Your task to perform on an android device: install app "Pinterest" Image 0: 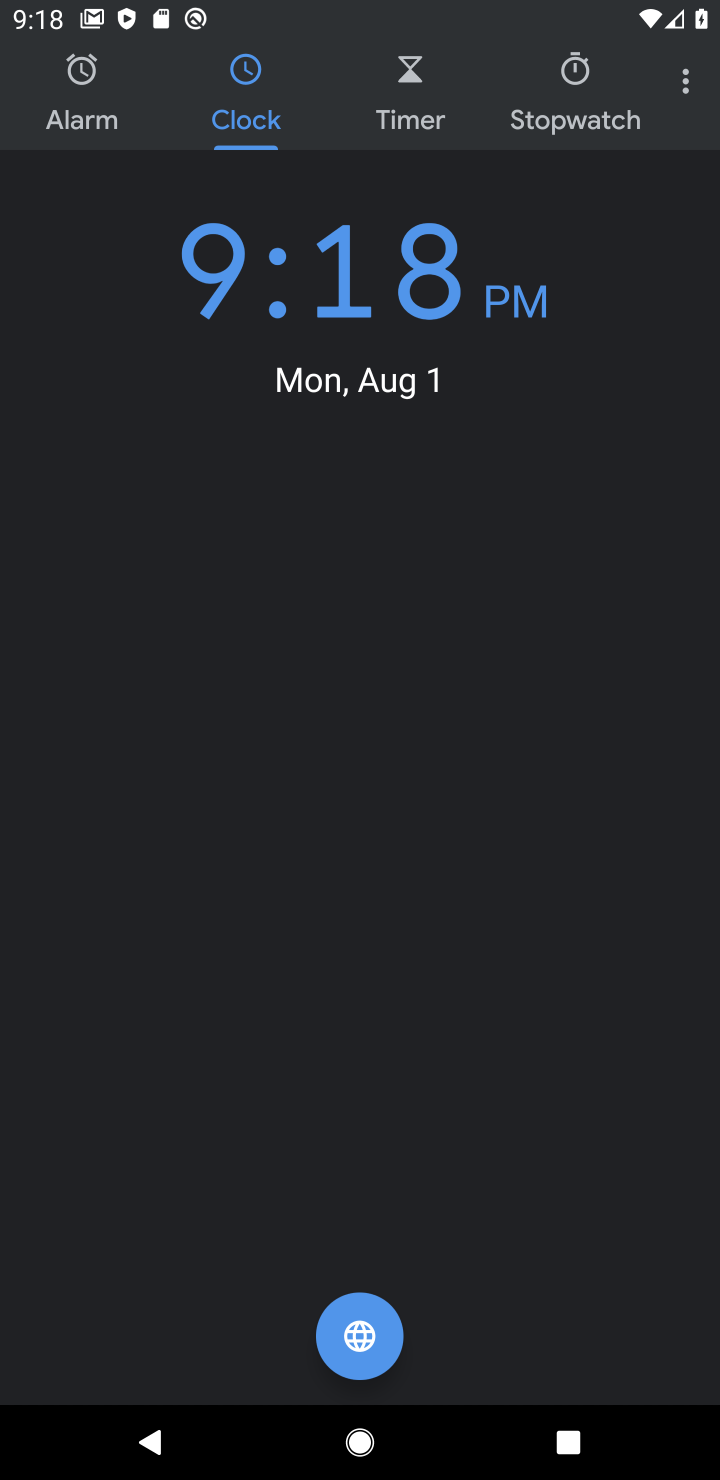
Step 0: press back button
Your task to perform on an android device: install app "Pinterest" Image 1: 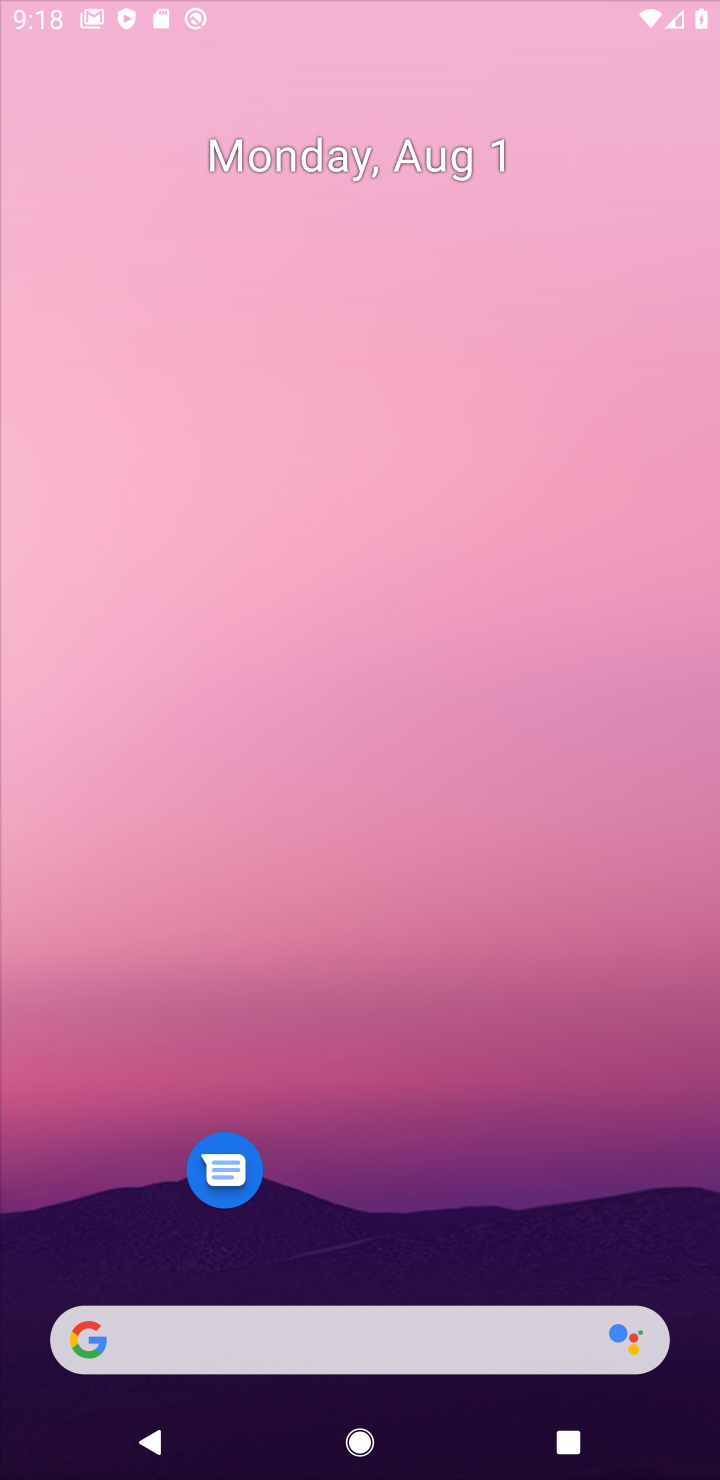
Step 1: press home button
Your task to perform on an android device: install app "Pinterest" Image 2: 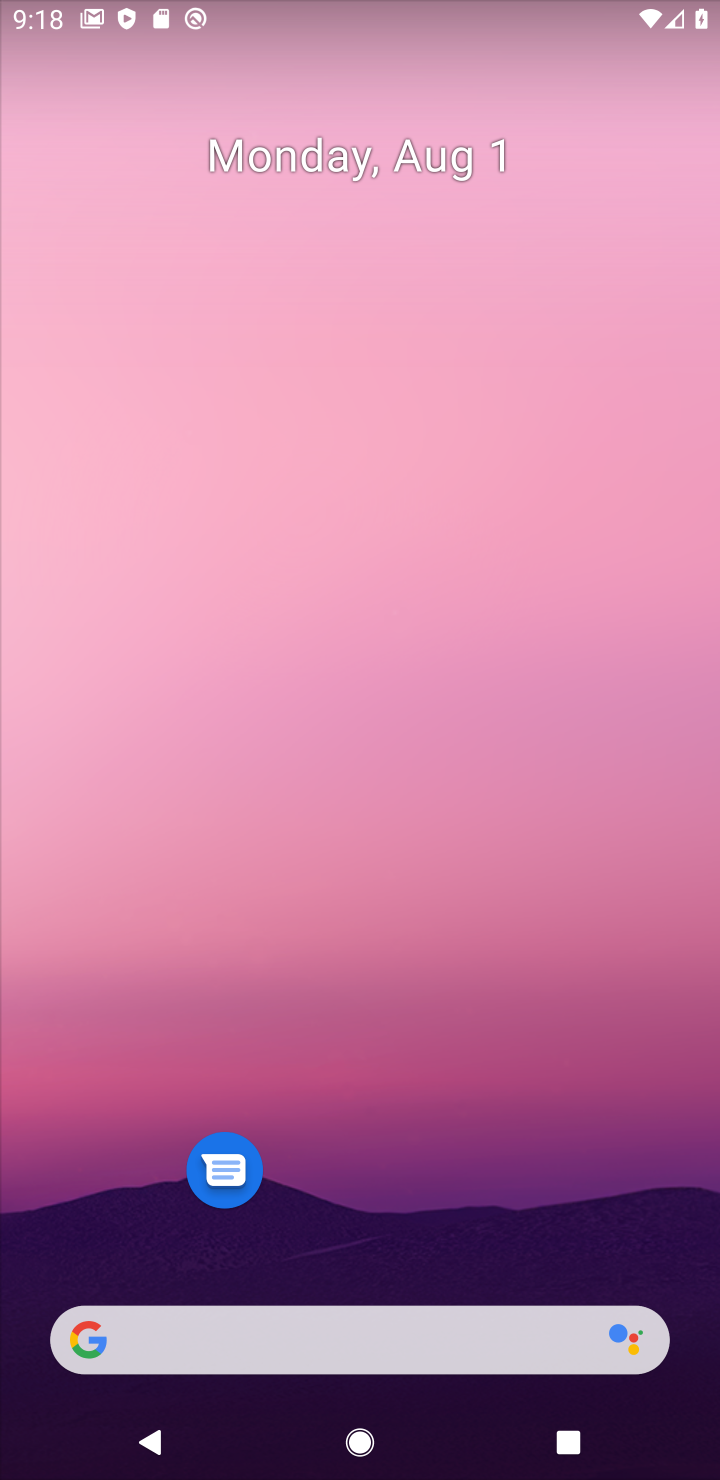
Step 2: press home button
Your task to perform on an android device: install app "Pinterest" Image 3: 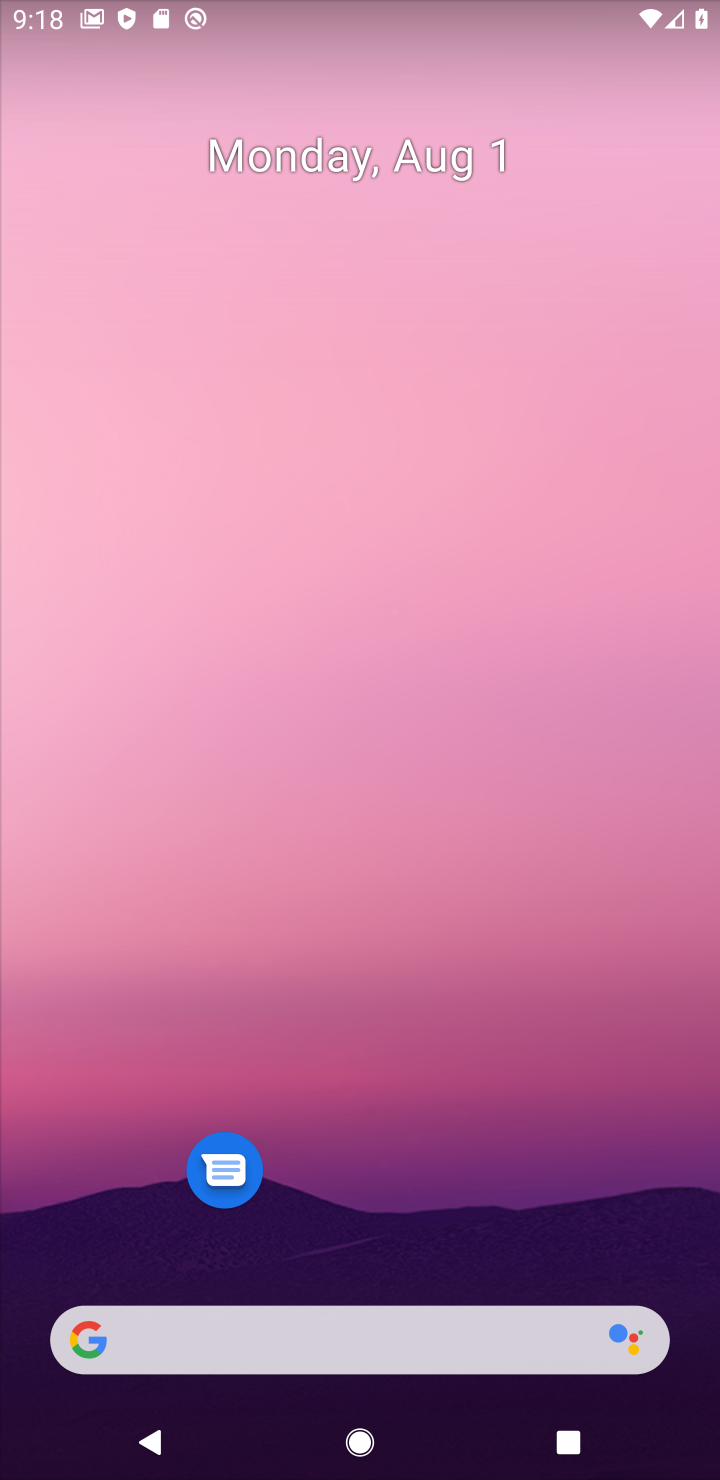
Step 3: drag from (420, 45) to (561, 127)
Your task to perform on an android device: install app "Pinterest" Image 4: 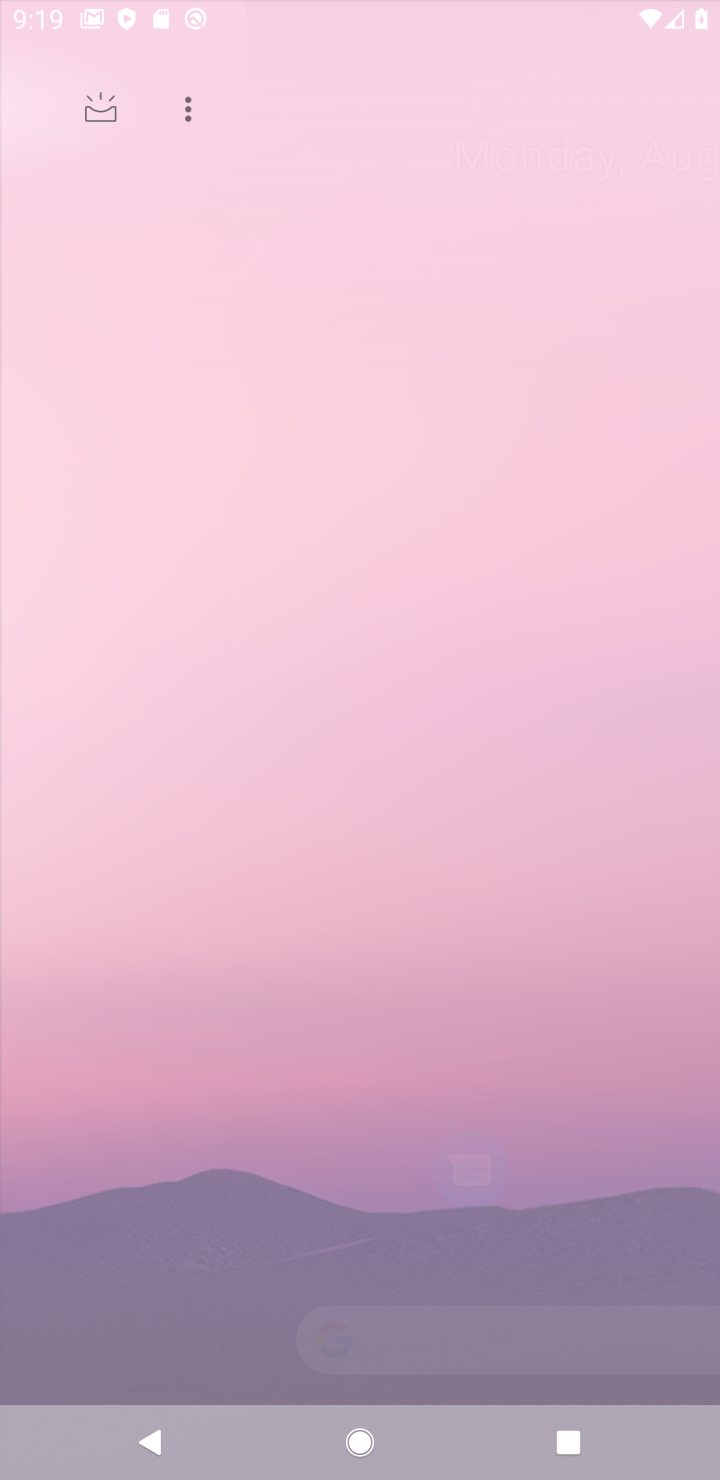
Step 4: click (452, 69)
Your task to perform on an android device: install app "Pinterest" Image 5: 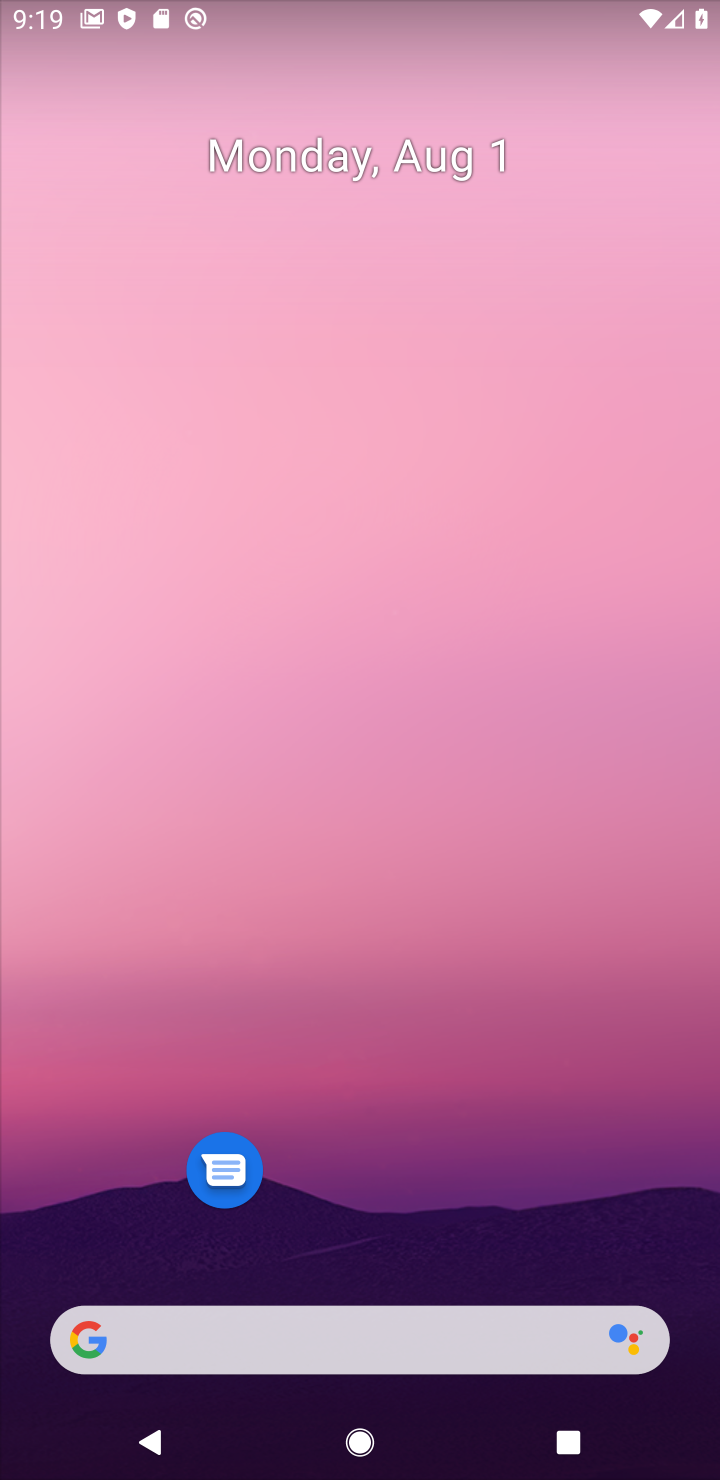
Step 5: click (305, 260)
Your task to perform on an android device: install app "Pinterest" Image 6: 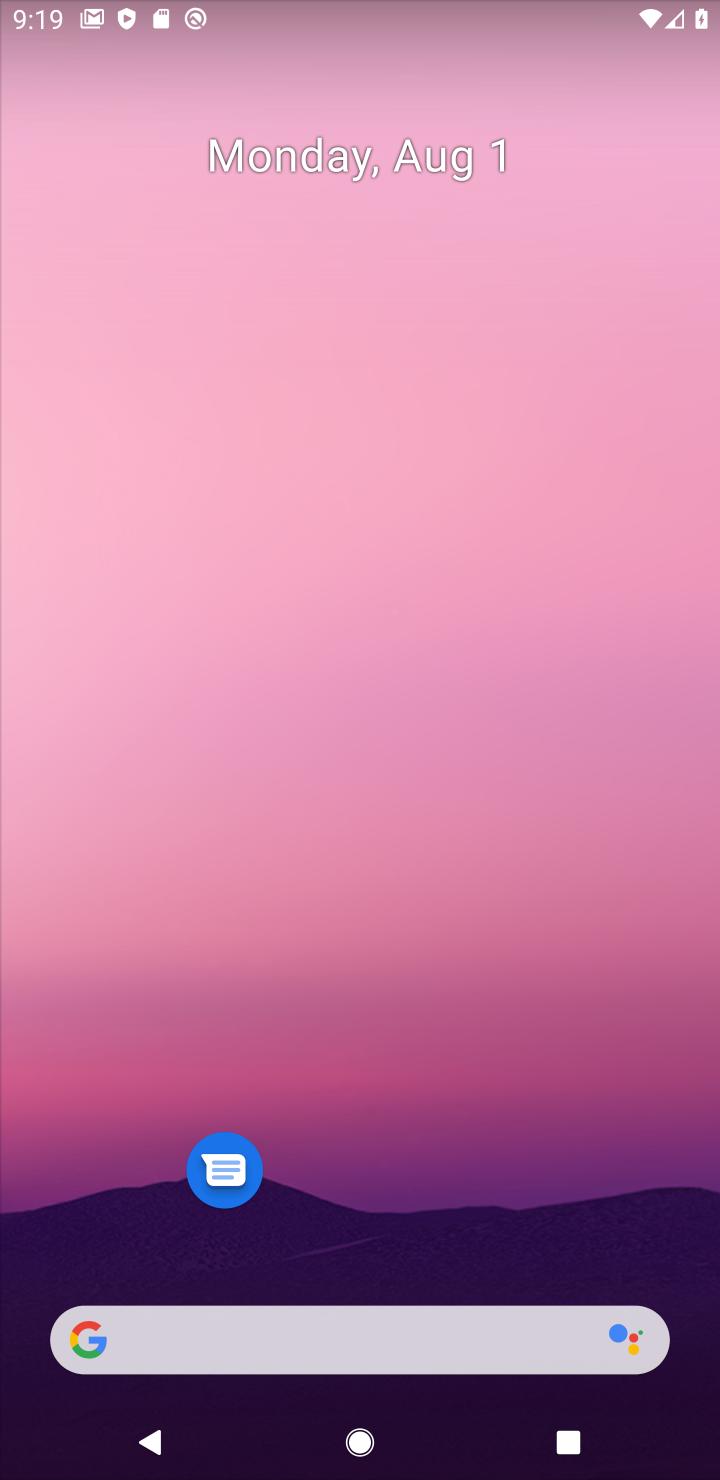
Step 6: drag from (260, 268) to (271, 169)
Your task to perform on an android device: install app "Pinterest" Image 7: 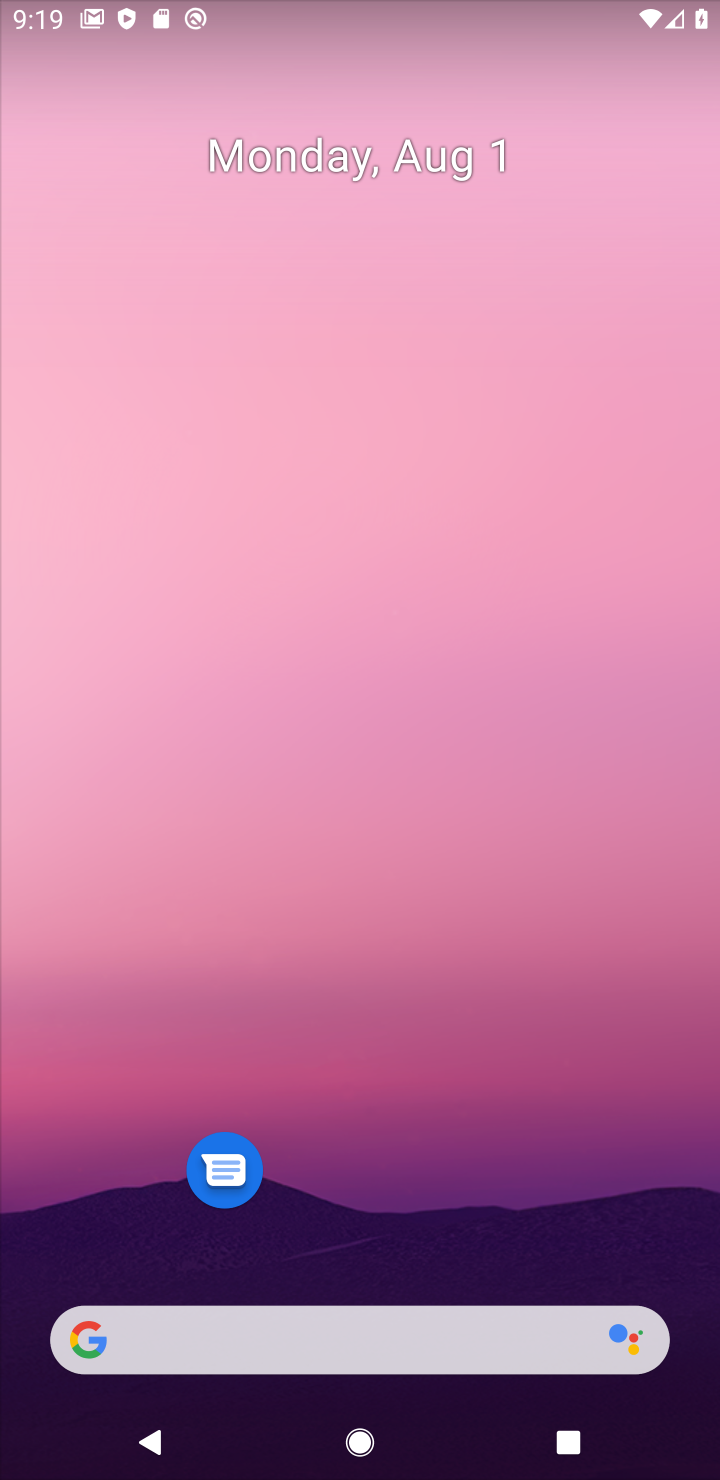
Step 7: drag from (461, 866) to (264, 13)
Your task to perform on an android device: install app "Pinterest" Image 8: 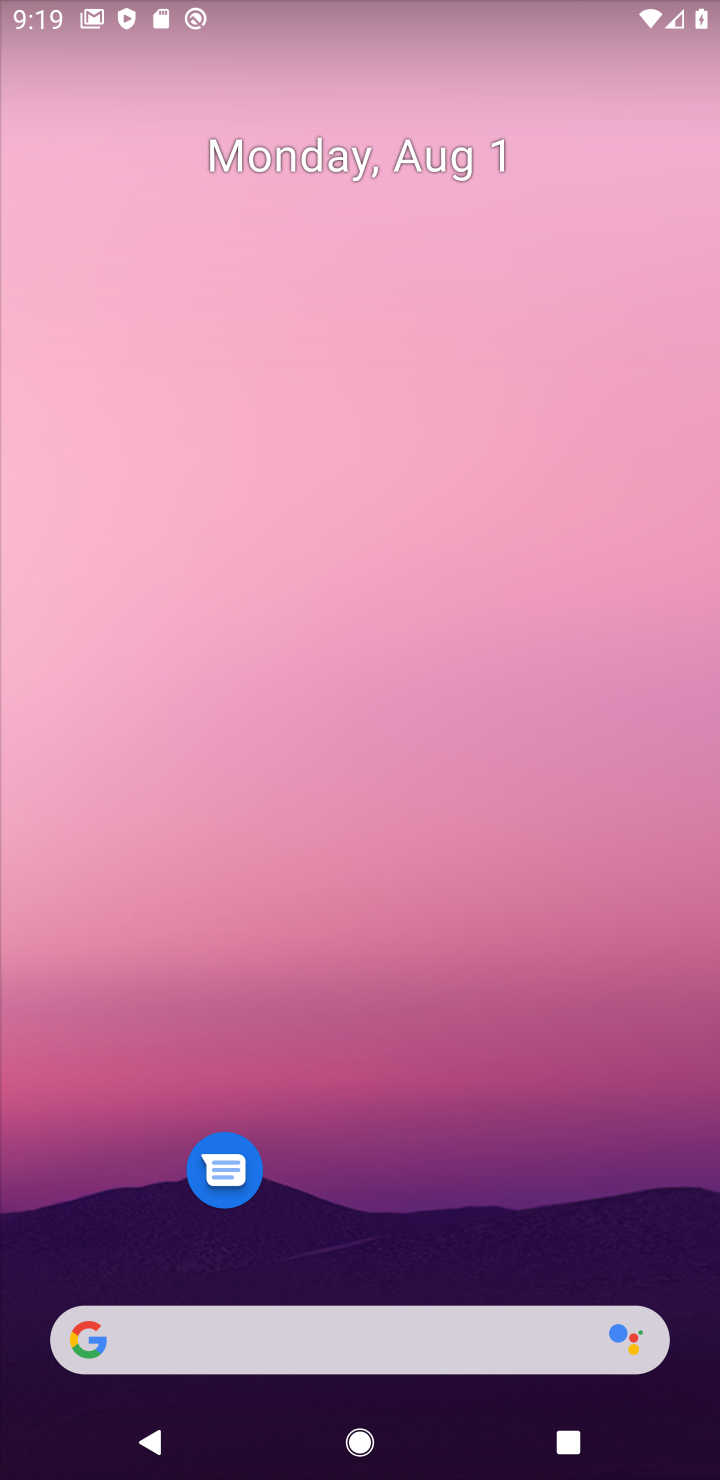
Step 8: drag from (402, 84) to (1, 297)
Your task to perform on an android device: install app "Pinterest" Image 9: 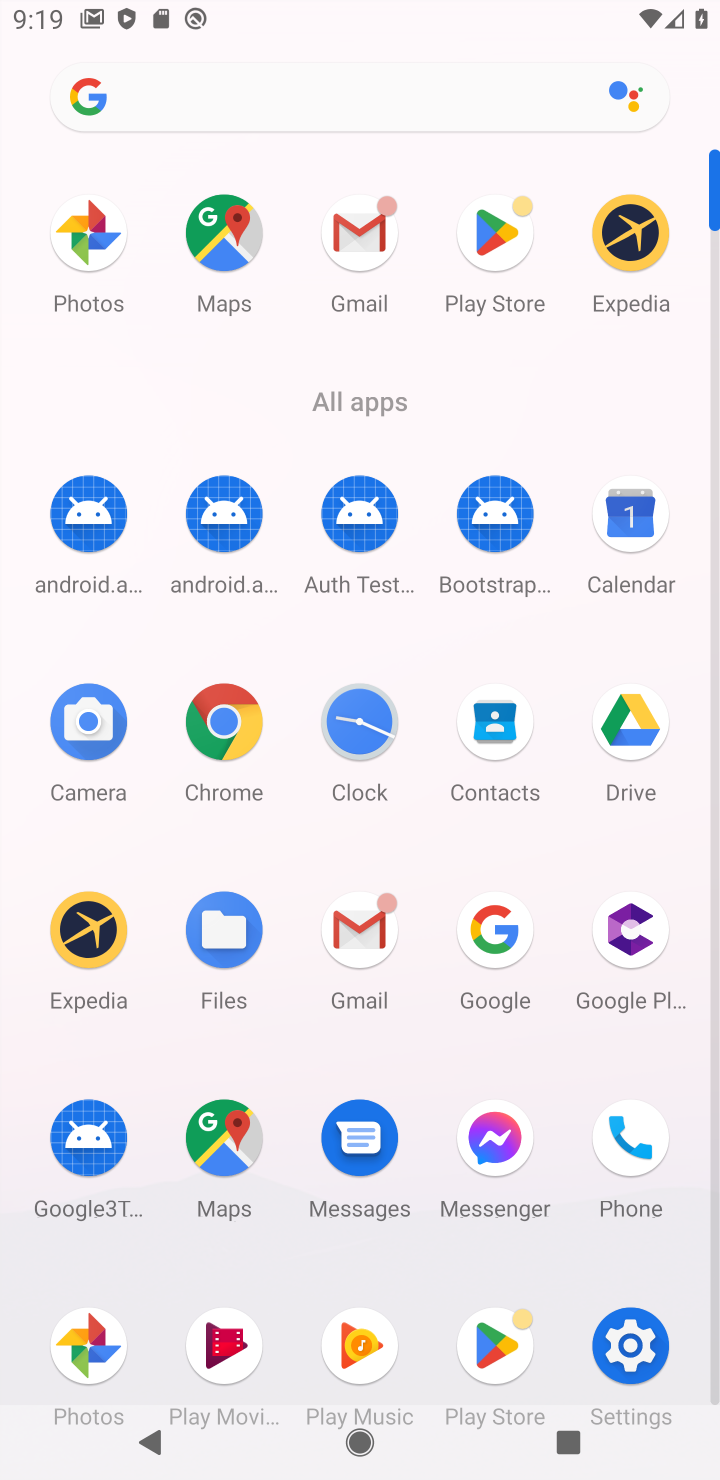
Step 9: click (507, 230)
Your task to perform on an android device: install app "Pinterest" Image 10: 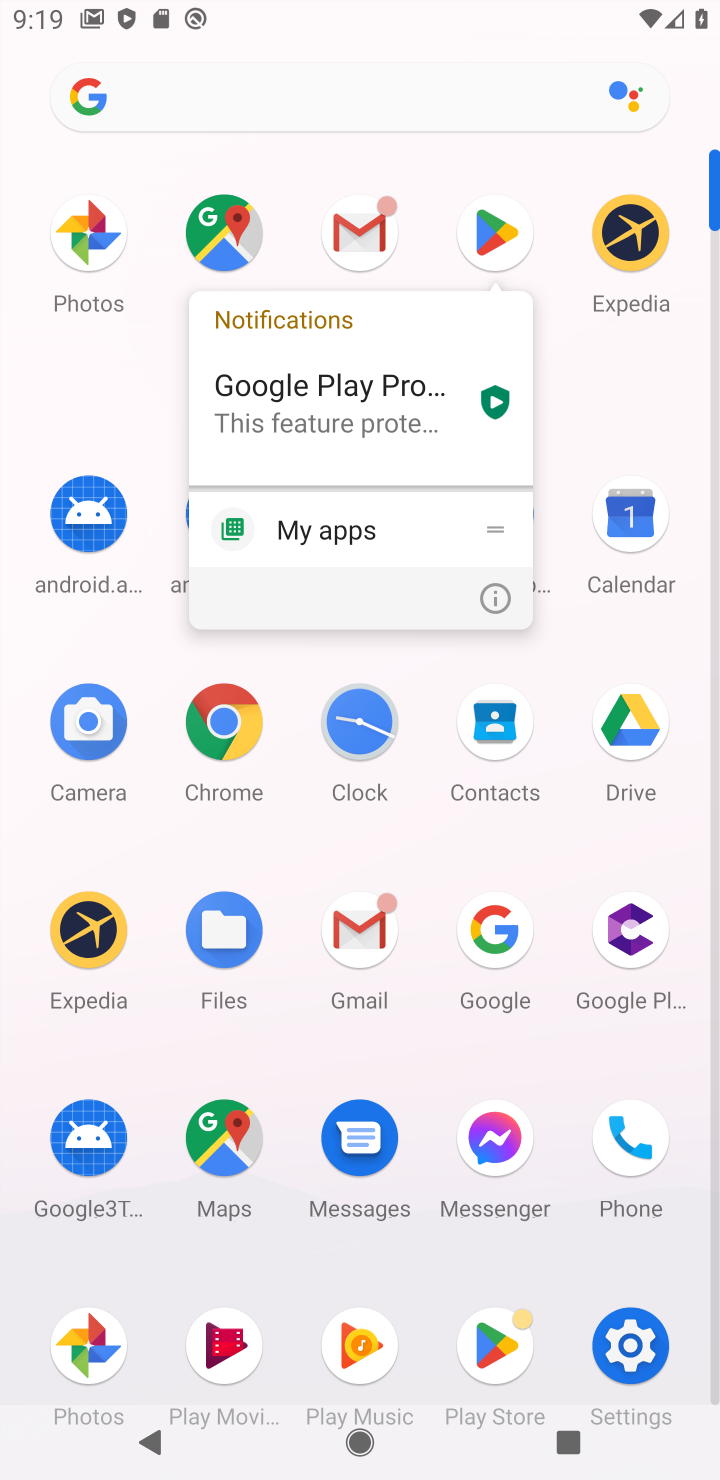
Step 10: click (498, 234)
Your task to perform on an android device: install app "Pinterest" Image 11: 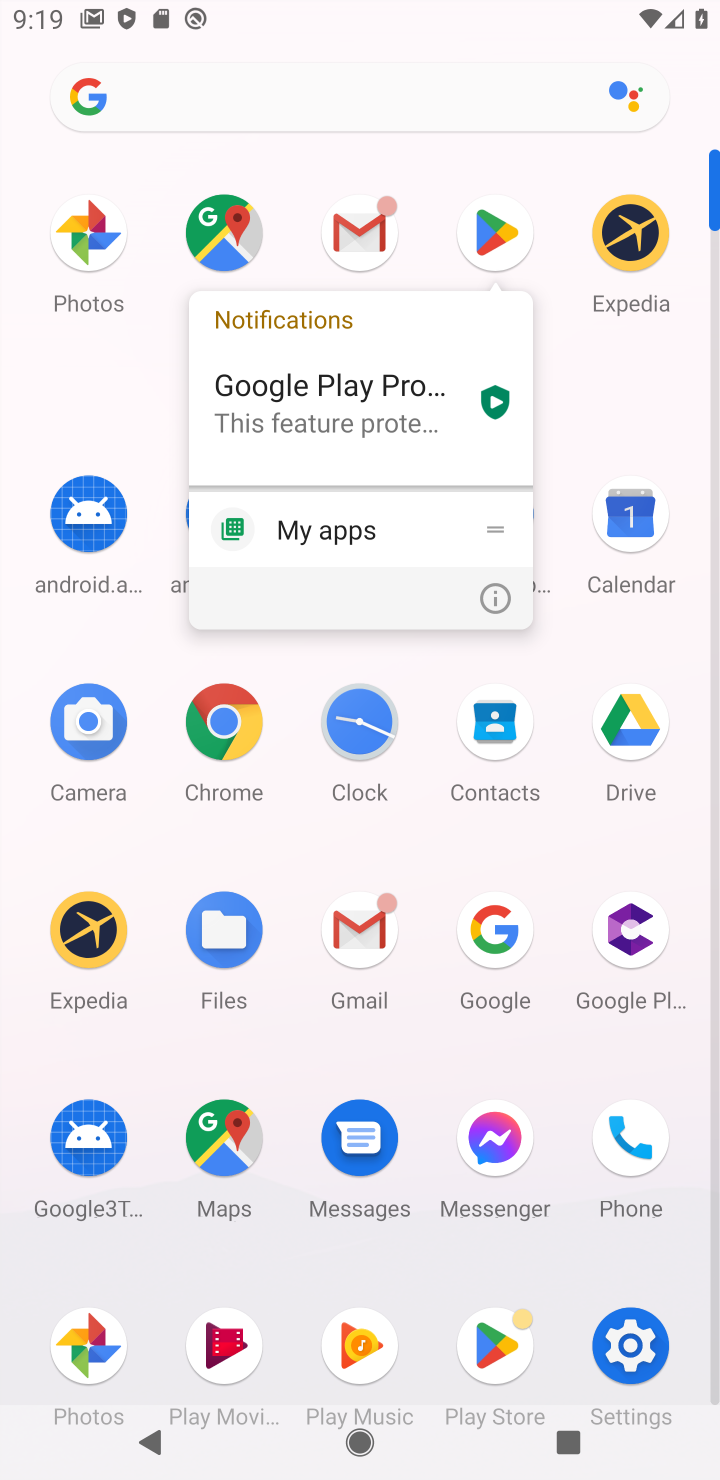
Step 11: click (504, 225)
Your task to perform on an android device: install app "Pinterest" Image 12: 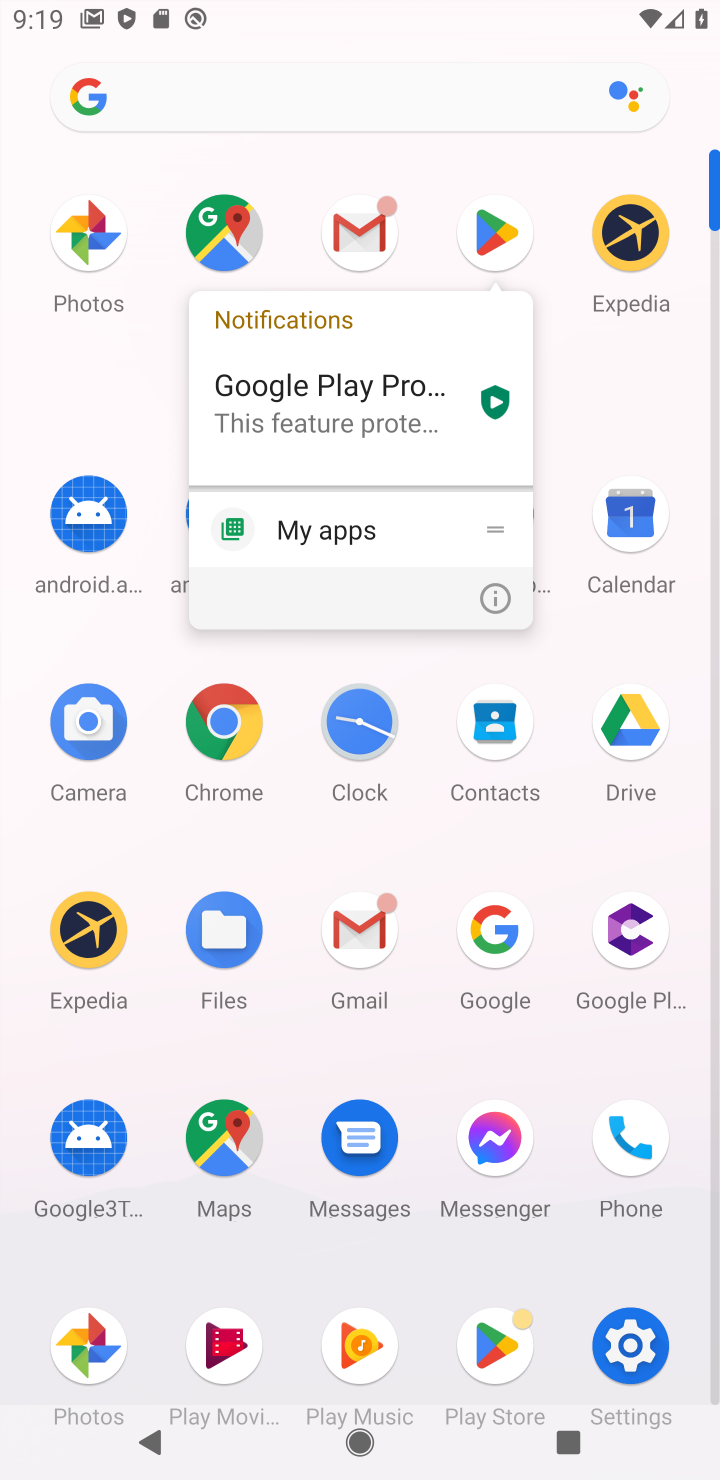
Step 12: click (512, 214)
Your task to perform on an android device: install app "Pinterest" Image 13: 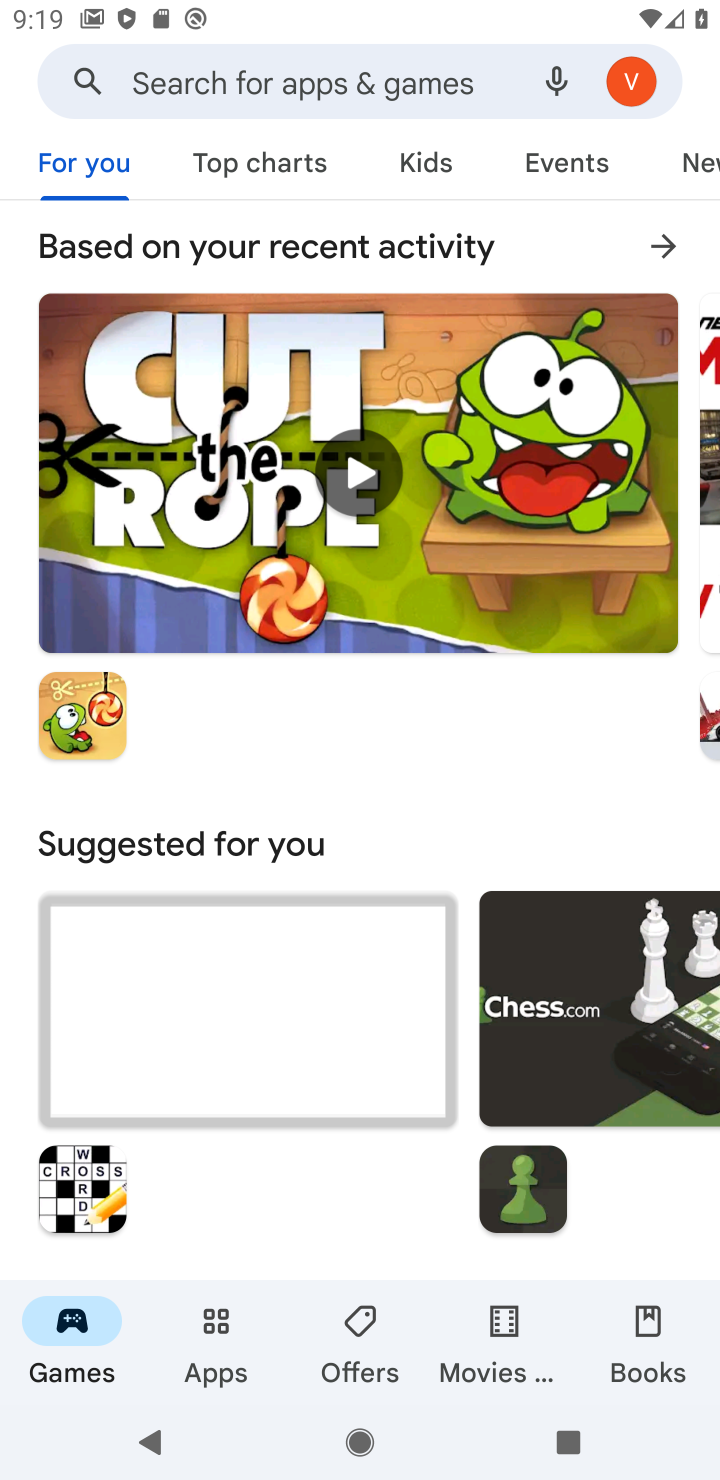
Step 13: click (162, 85)
Your task to perform on an android device: install app "Pinterest" Image 14: 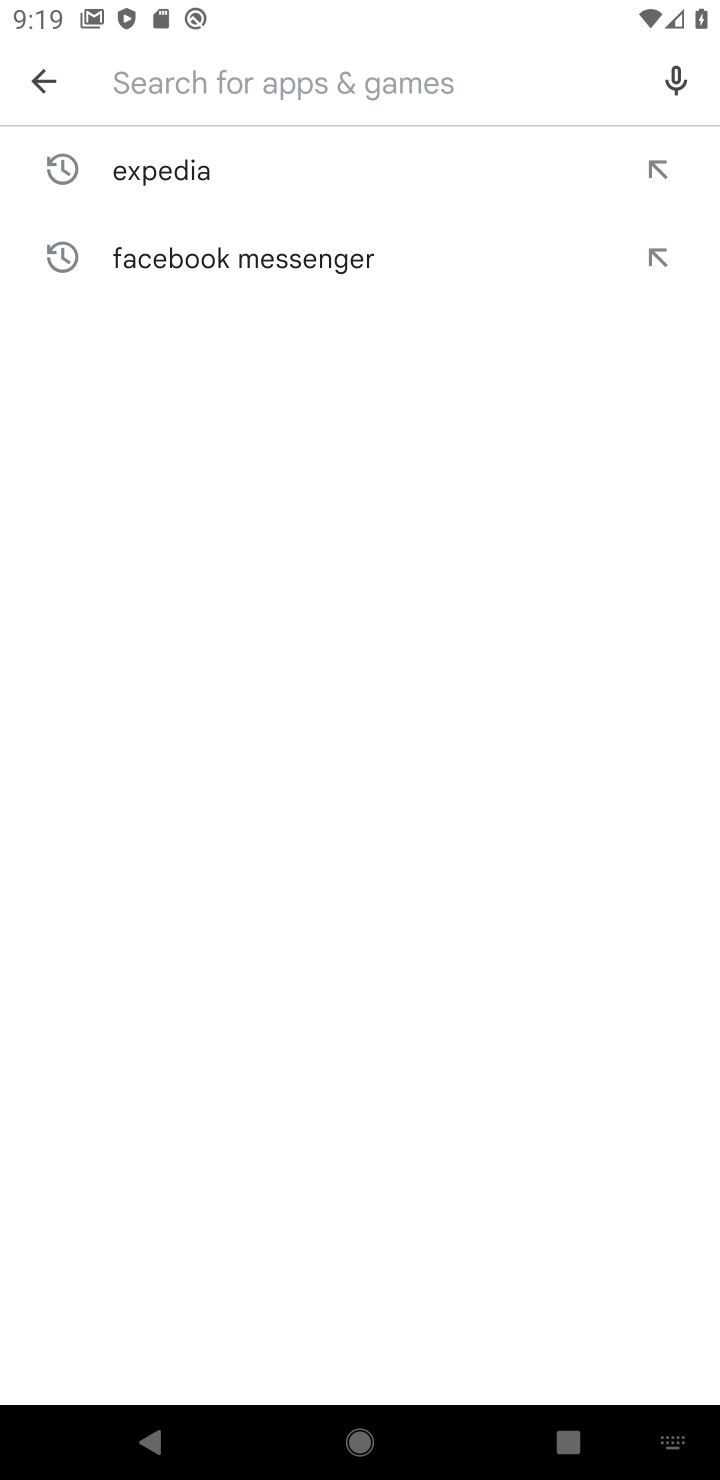
Step 14: type "pinterest"
Your task to perform on an android device: install app "Pinterest" Image 15: 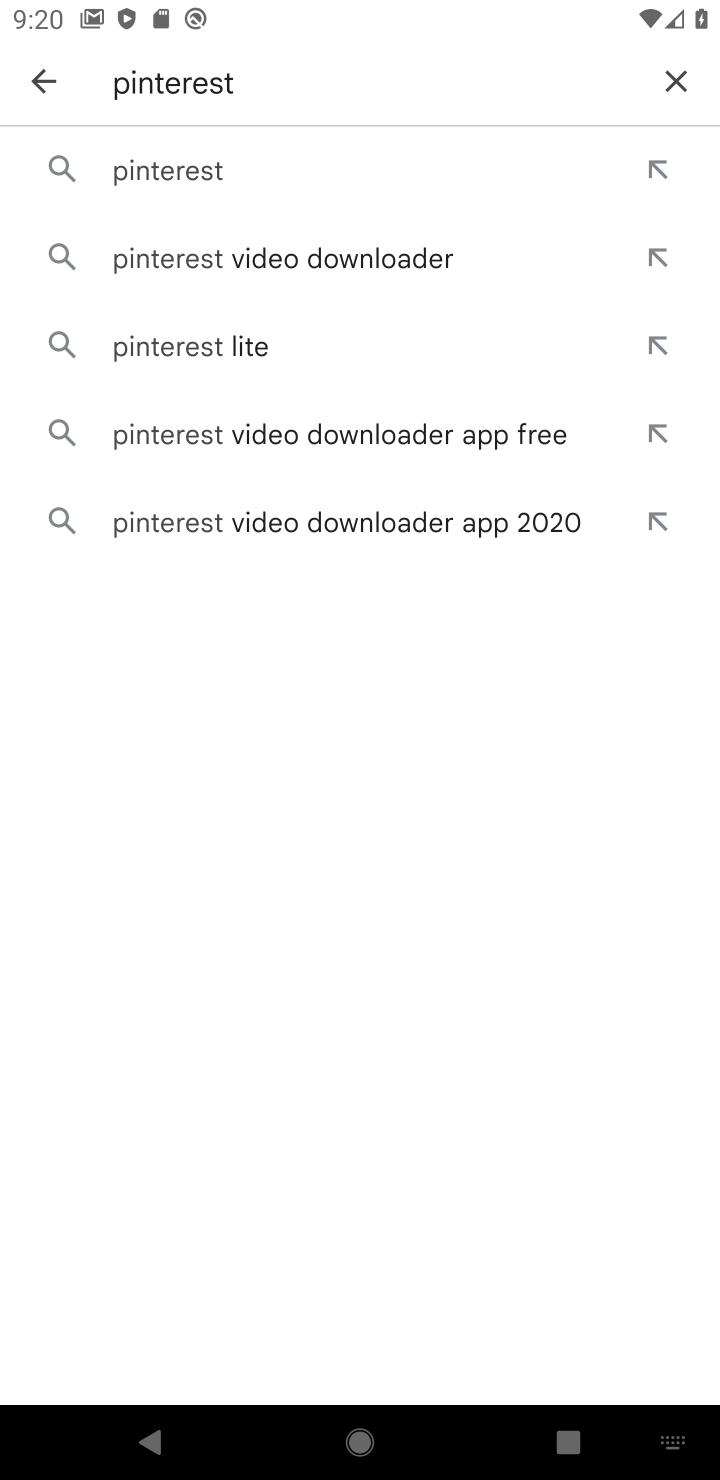
Step 15: click (188, 148)
Your task to perform on an android device: install app "Pinterest" Image 16: 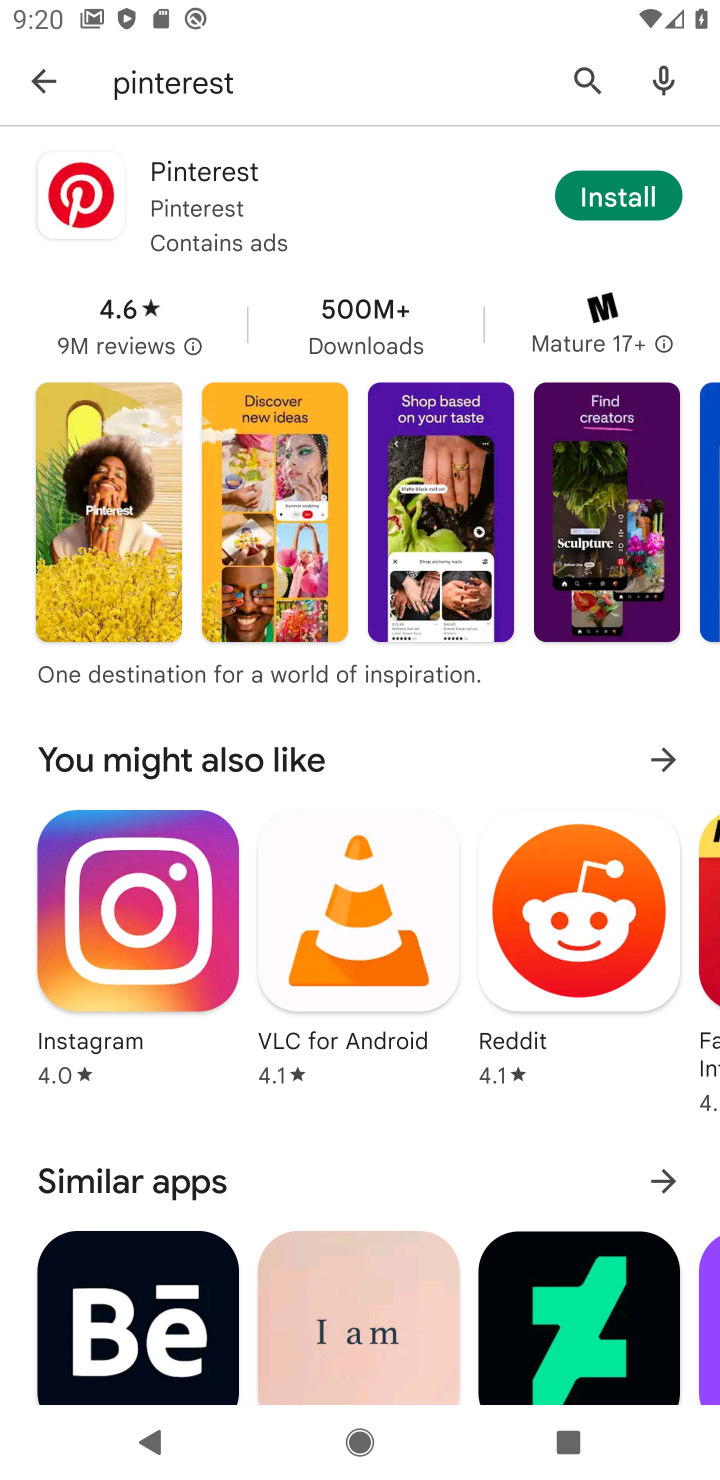
Step 16: click (595, 213)
Your task to perform on an android device: install app "Pinterest" Image 17: 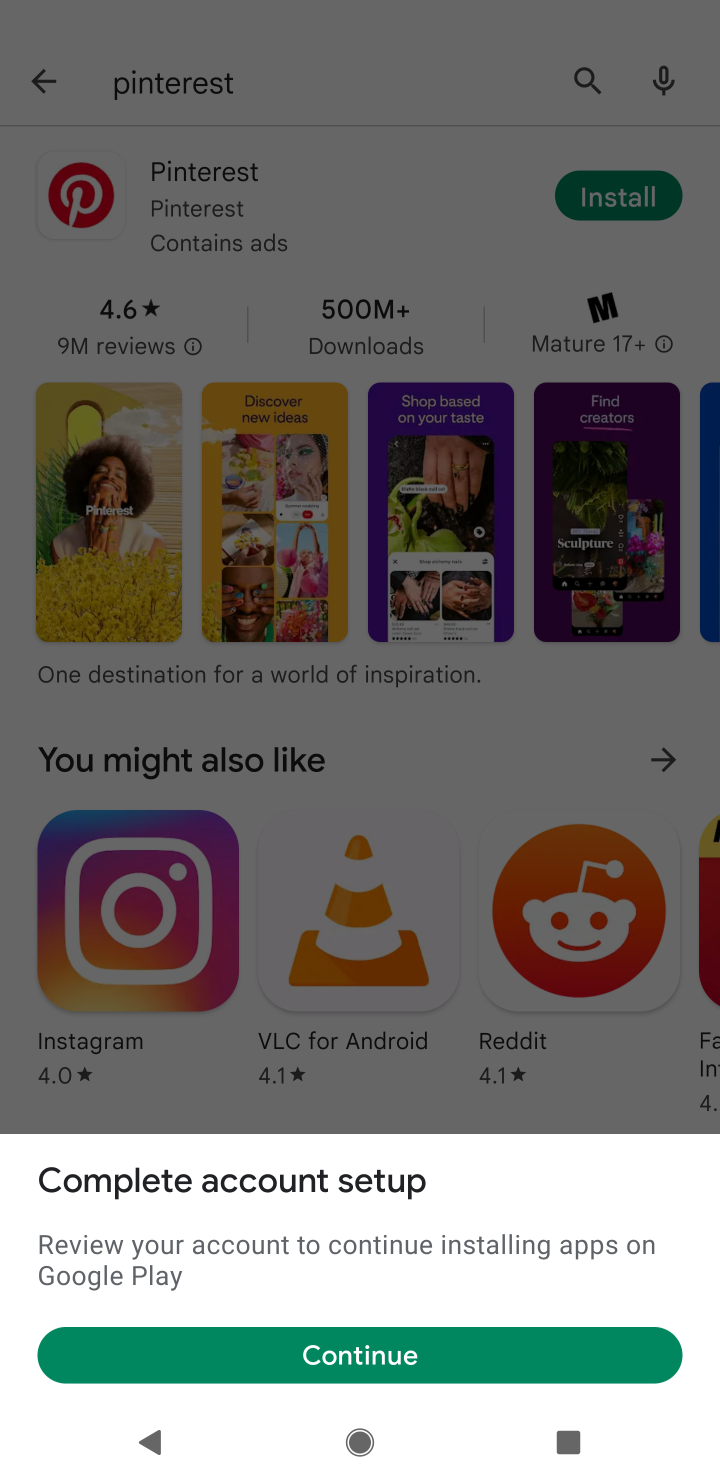
Step 17: click (425, 1383)
Your task to perform on an android device: install app "Pinterest" Image 18: 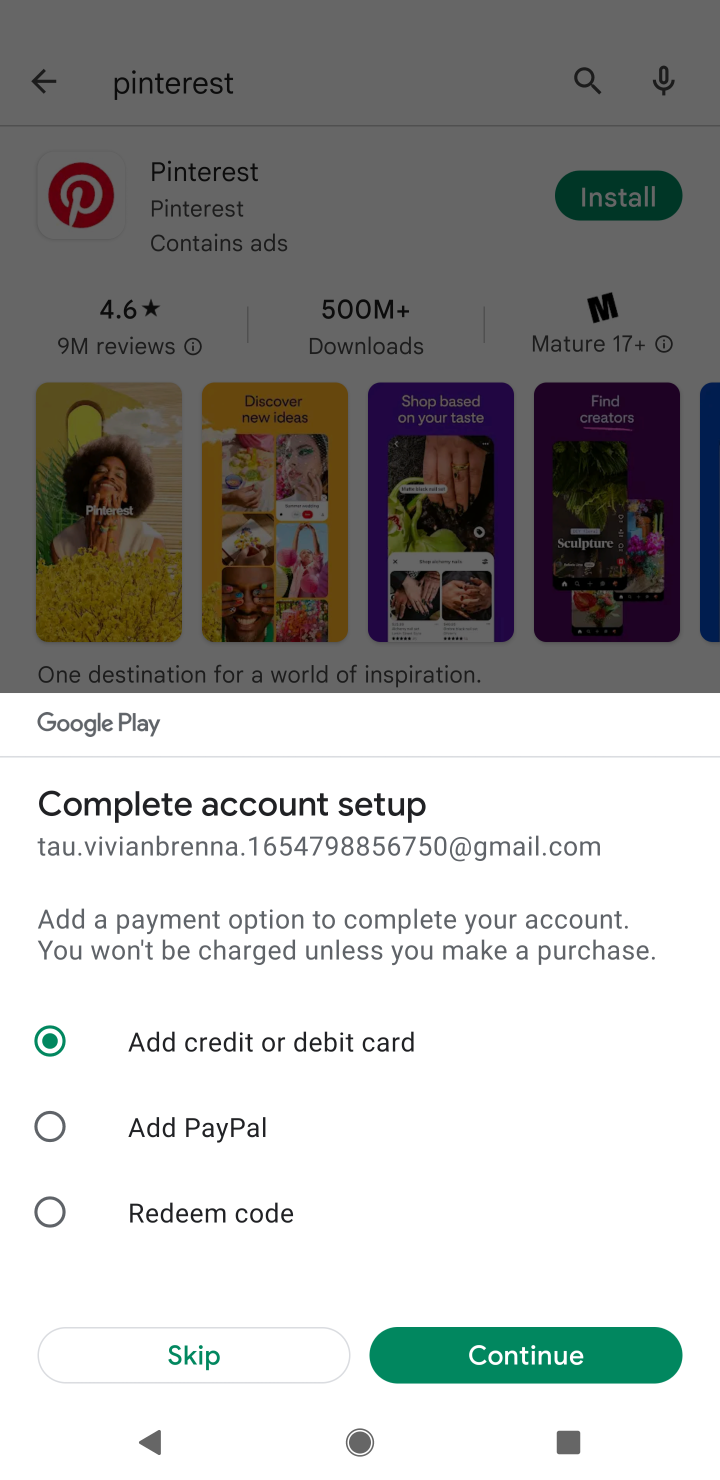
Step 18: click (167, 1360)
Your task to perform on an android device: install app "Pinterest" Image 19: 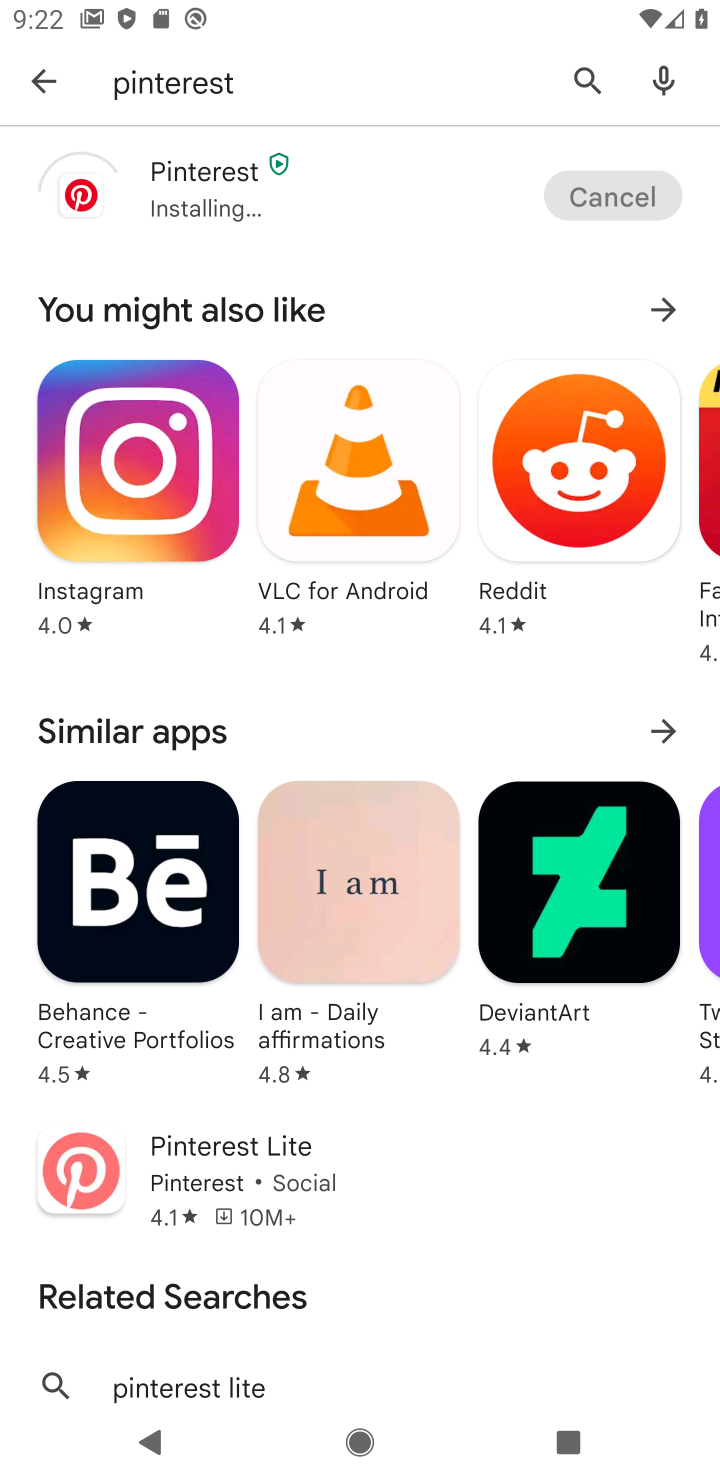
Step 19: click (599, 187)
Your task to perform on an android device: install app "Pinterest" Image 20: 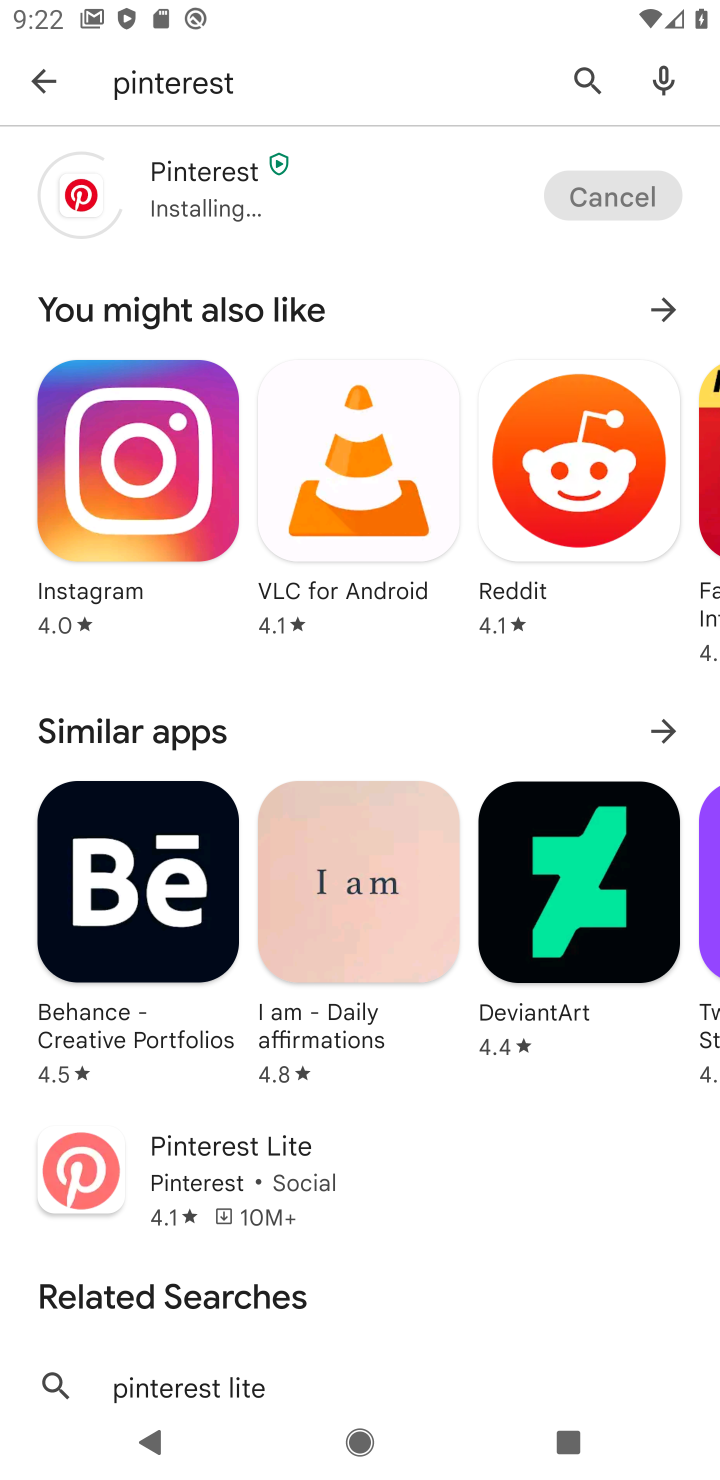
Step 20: click (628, 219)
Your task to perform on an android device: install app "Pinterest" Image 21: 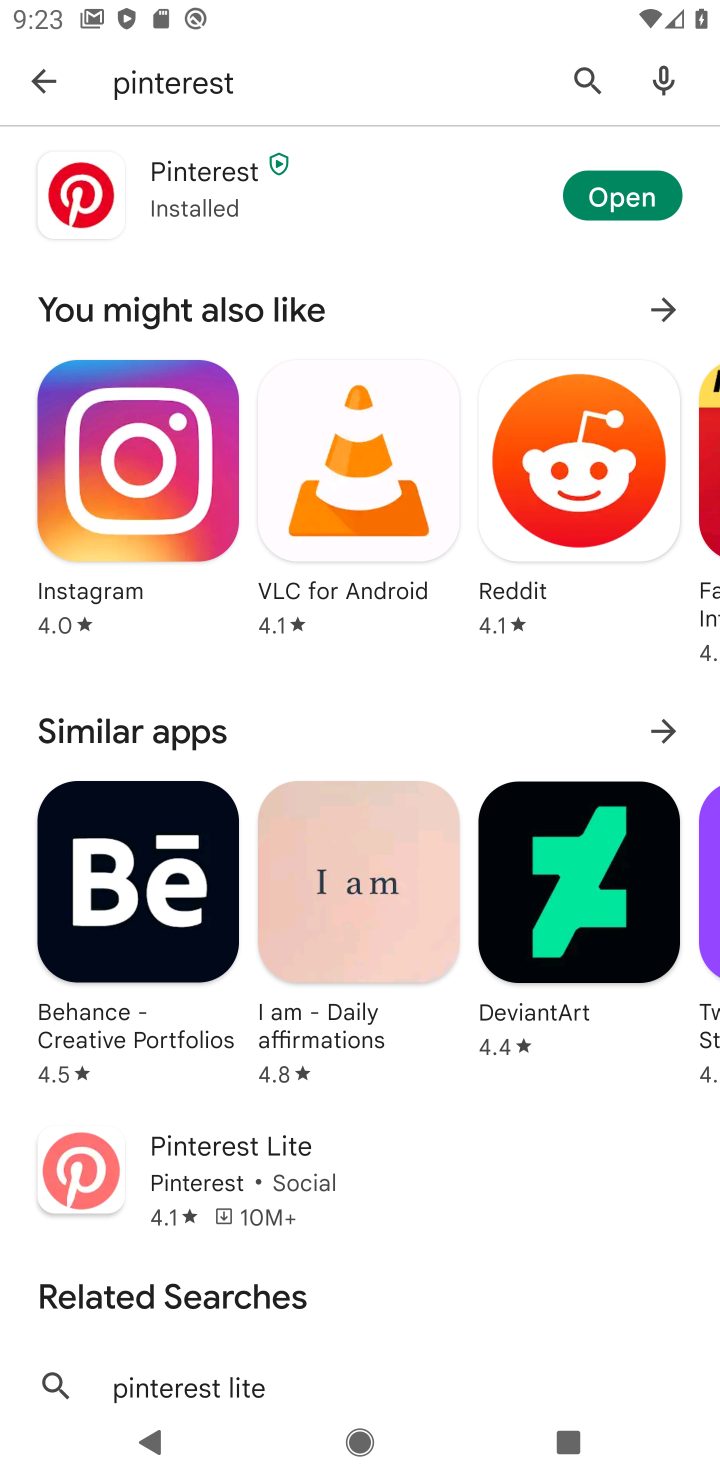
Step 21: click (609, 198)
Your task to perform on an android device: install app "Pinterest" Image 22: 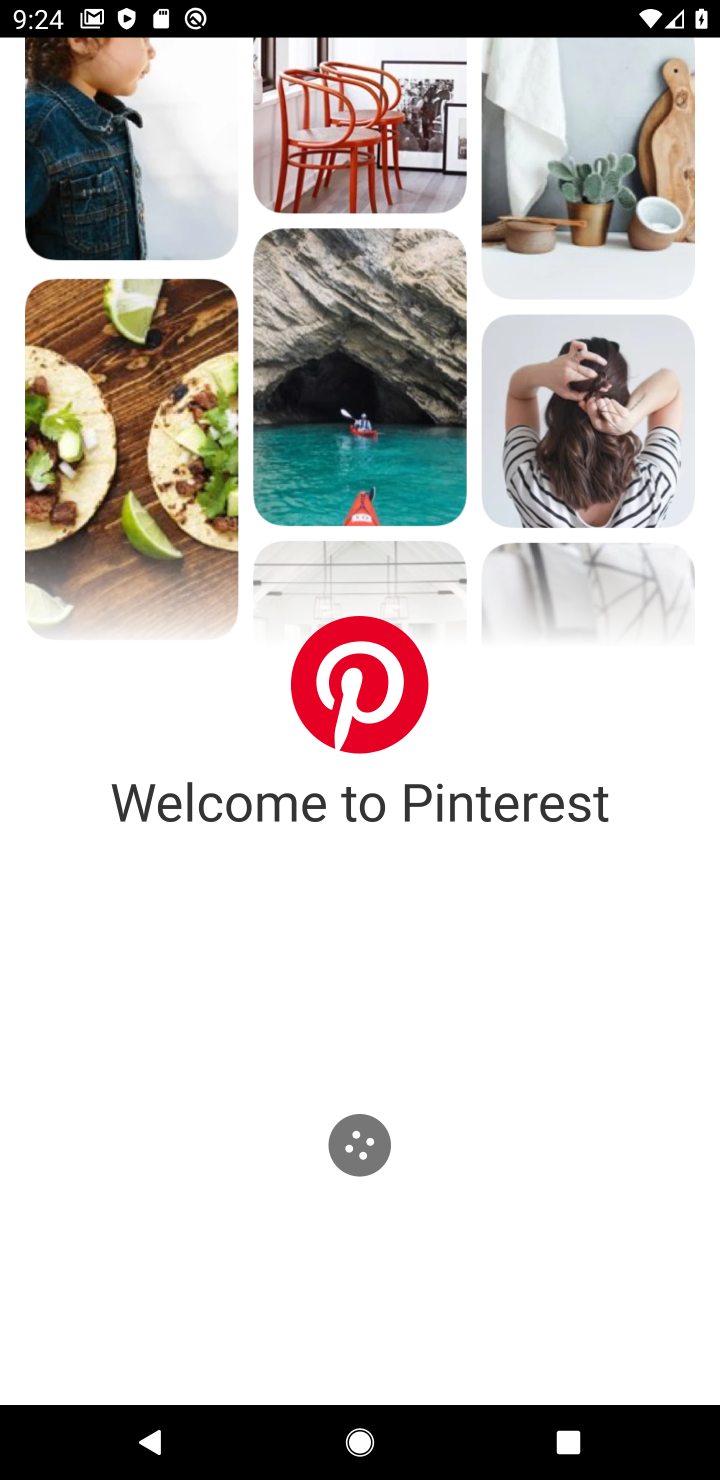
Step 22: task complete